Your task to perform on an android device: Turn off the flashlight Image 0: 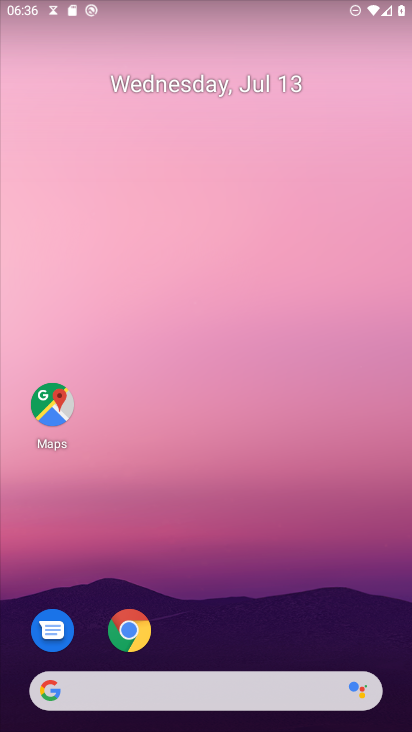
Step 0: drag from (278, 1) to (333, 513)
Your task to perform on an android device: Turn off the flashlight Image 1: 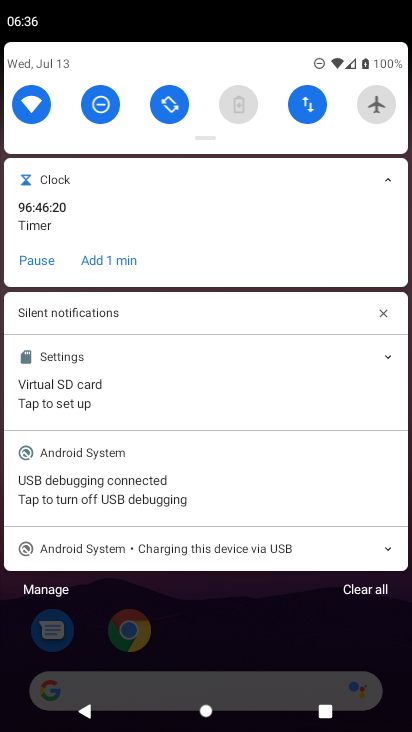
Step 1: task complete